Your task to perform on an android device: What's on the menu at Chipotle? Image 0: 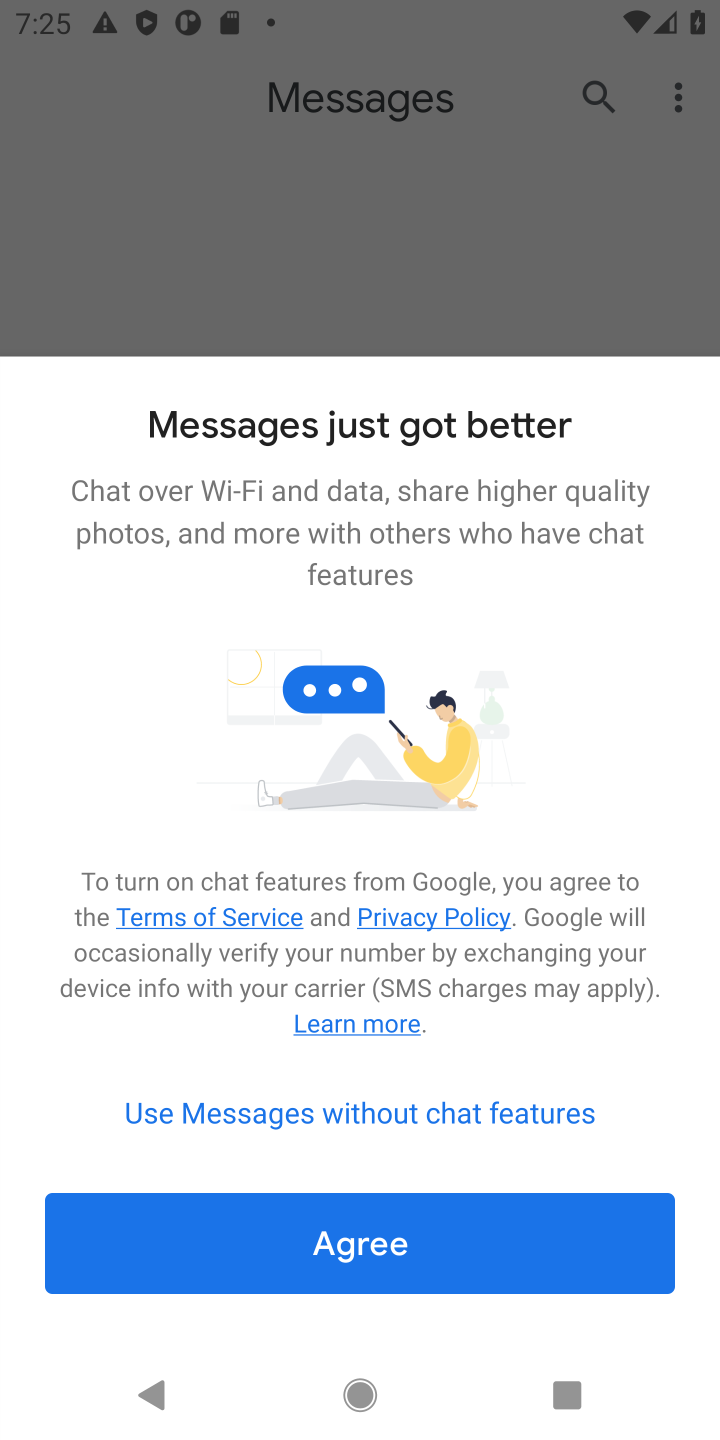
Step 0: press home button
Your task to perform on an android device: What's on the menu at Chipotle? Image 1: 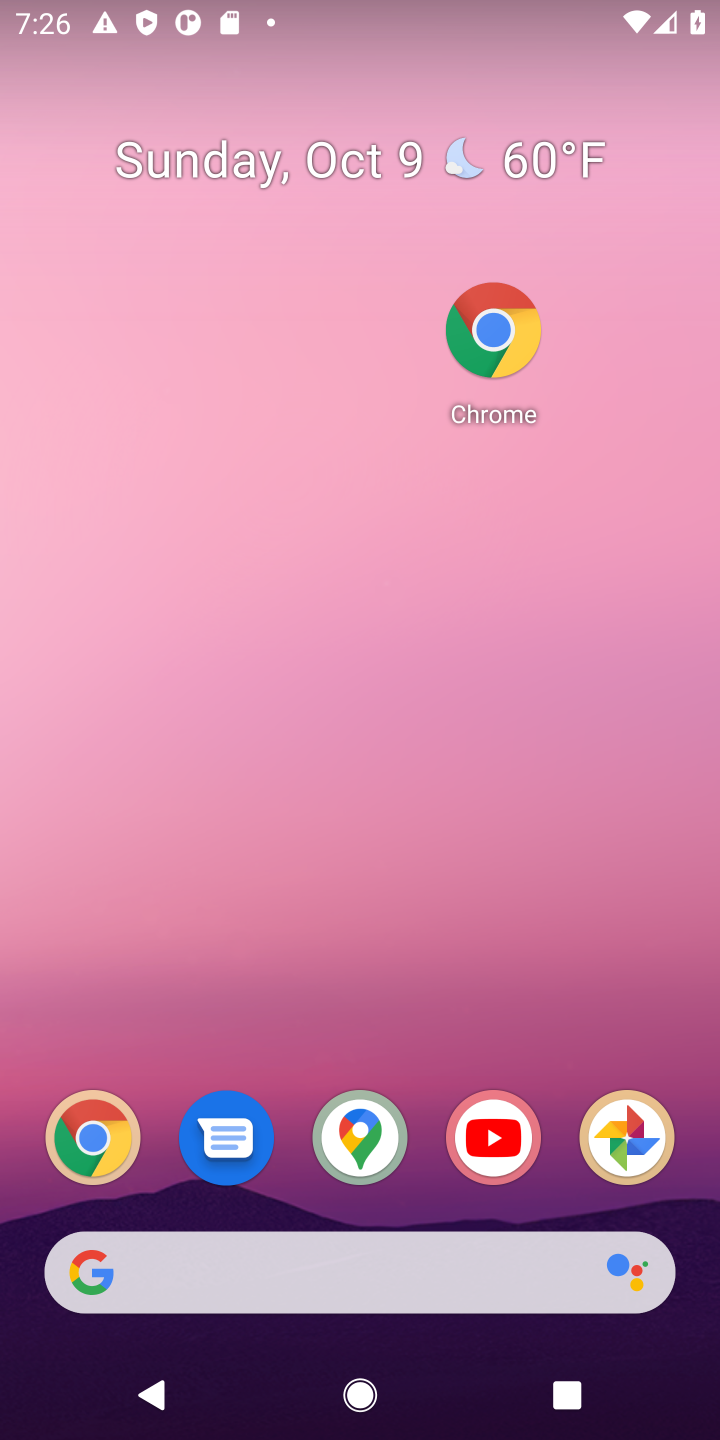
Step 1: click (492, 339)
Your task to perform on an android device: What's on the menu at Chipotle? Image 2: 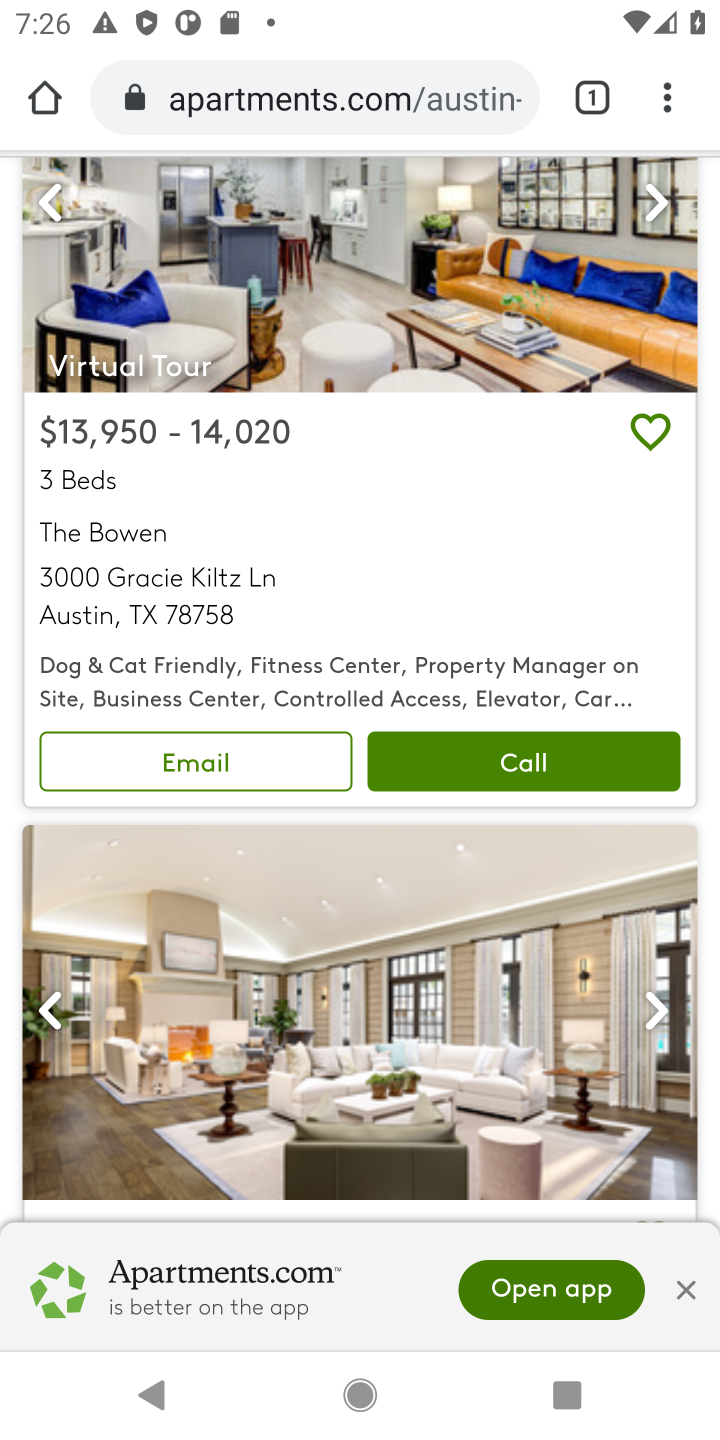
Step 2: click (425, 100)
Your task to perform on an android device: What's on the menu at Chipotle? Image 3: 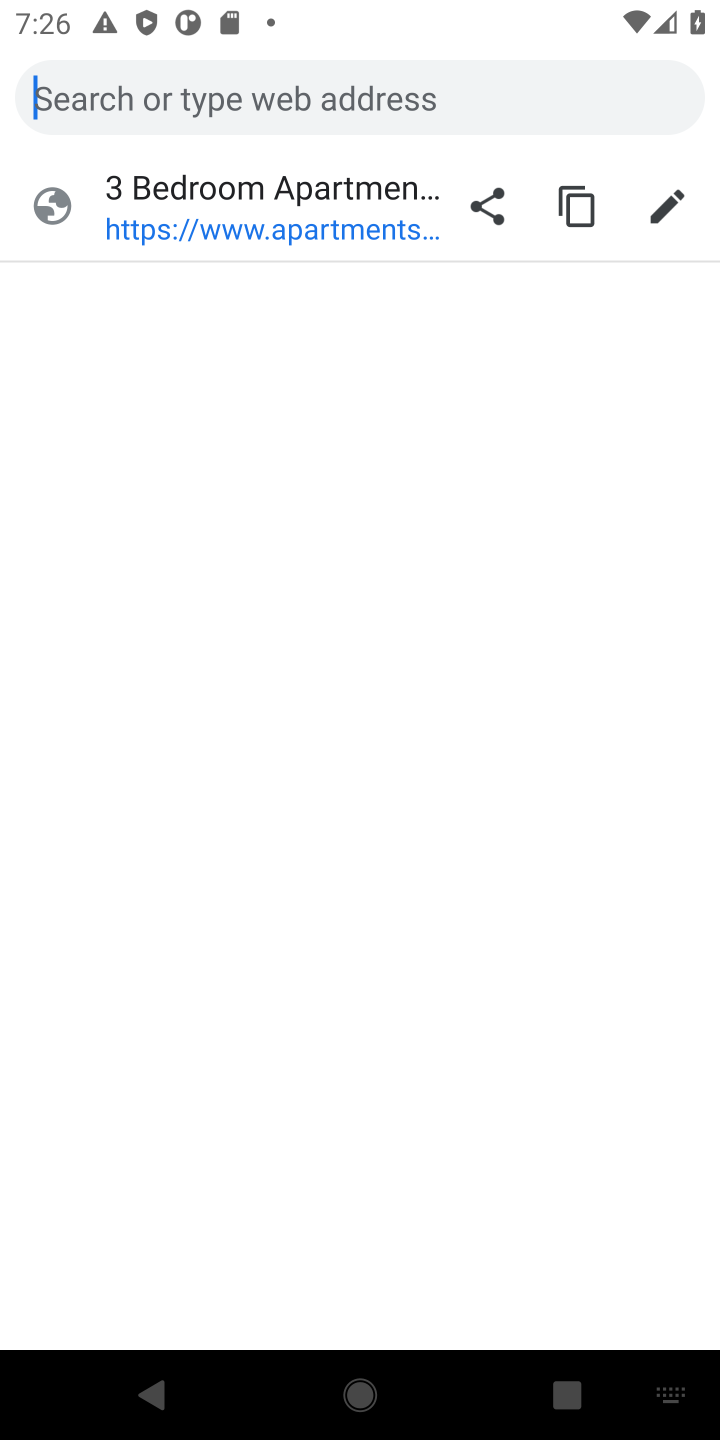
Step 3: type "menu at Chipotle"
Your task to perform on an android device: What's on the menu at Chipotle? Image 4: 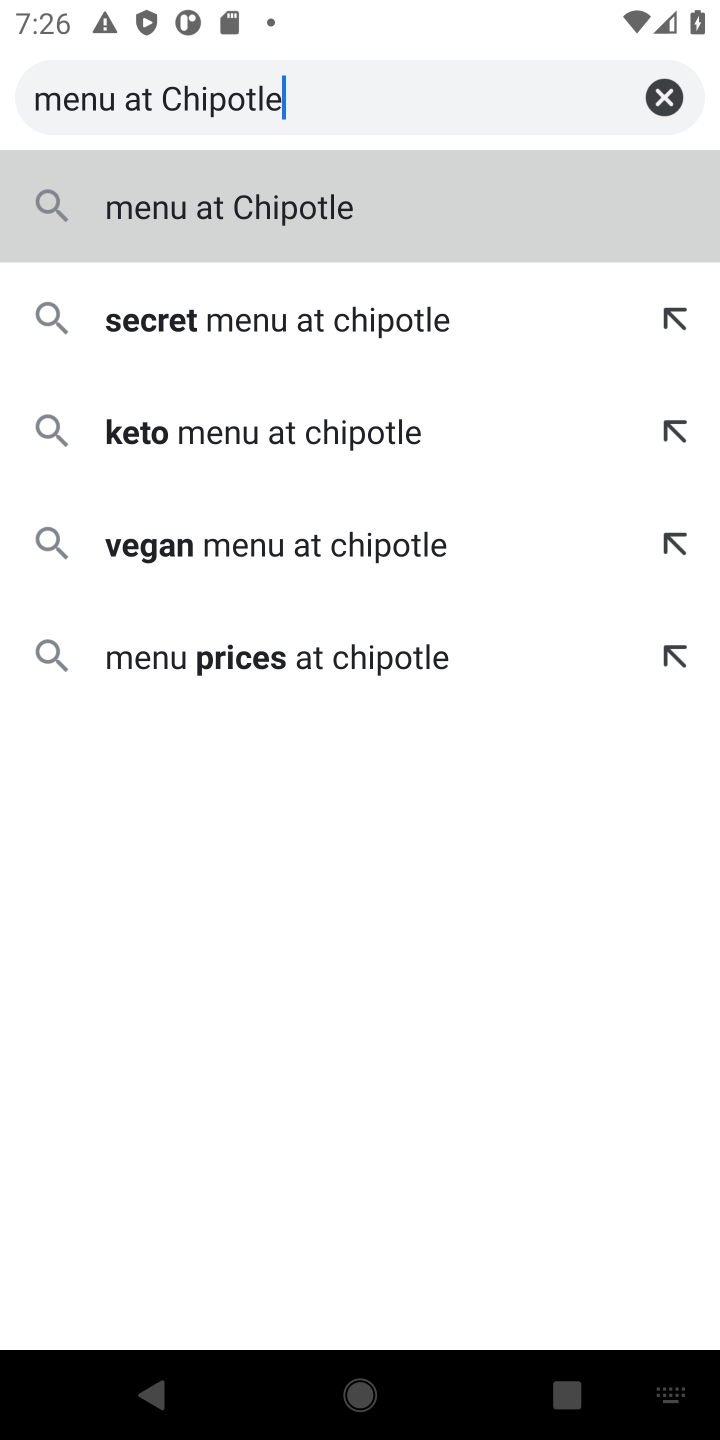
Step 4: click (274, 211)
Your task to perform on an android device: What's on the menu at Chipotle? Image 5: 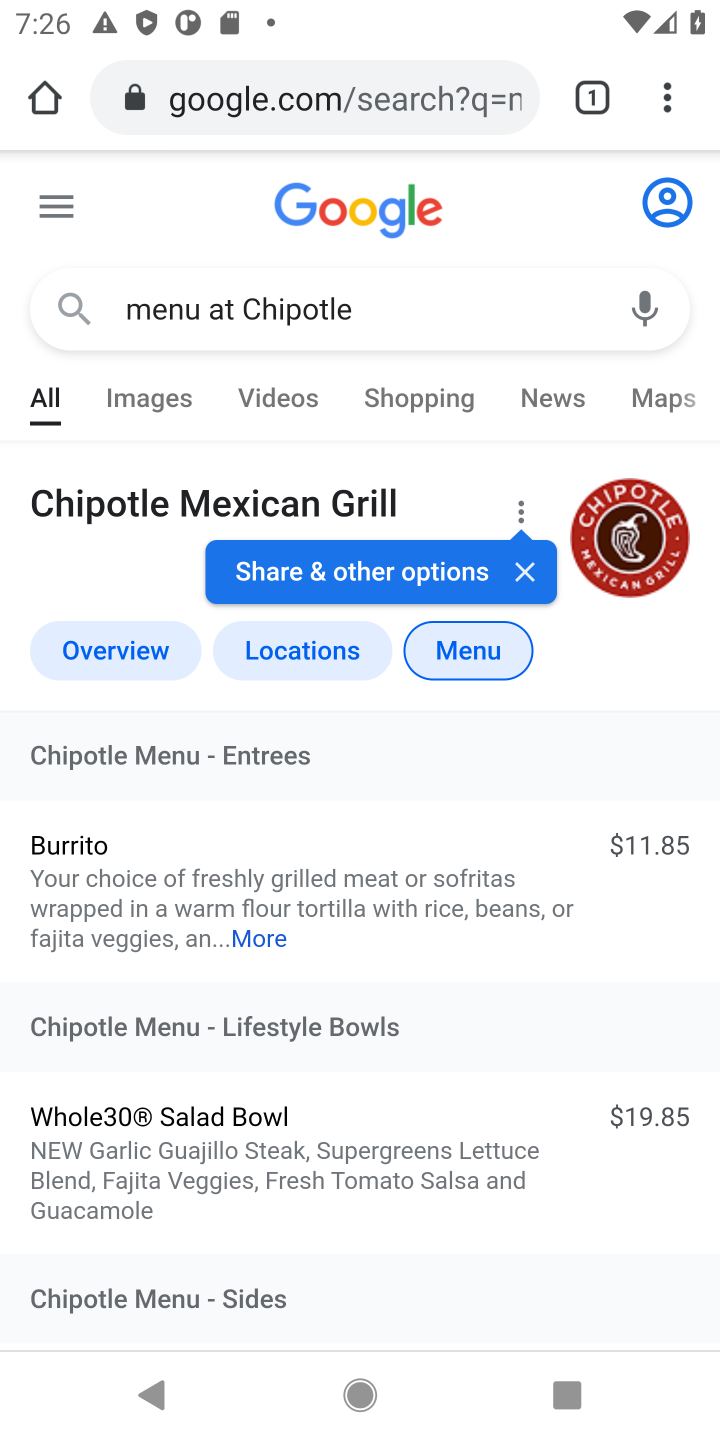
Step 5: drag from (515, 914) to (547, 541)
Your task to perform on an android device: What's on the menu at Chipotle? Image 6: 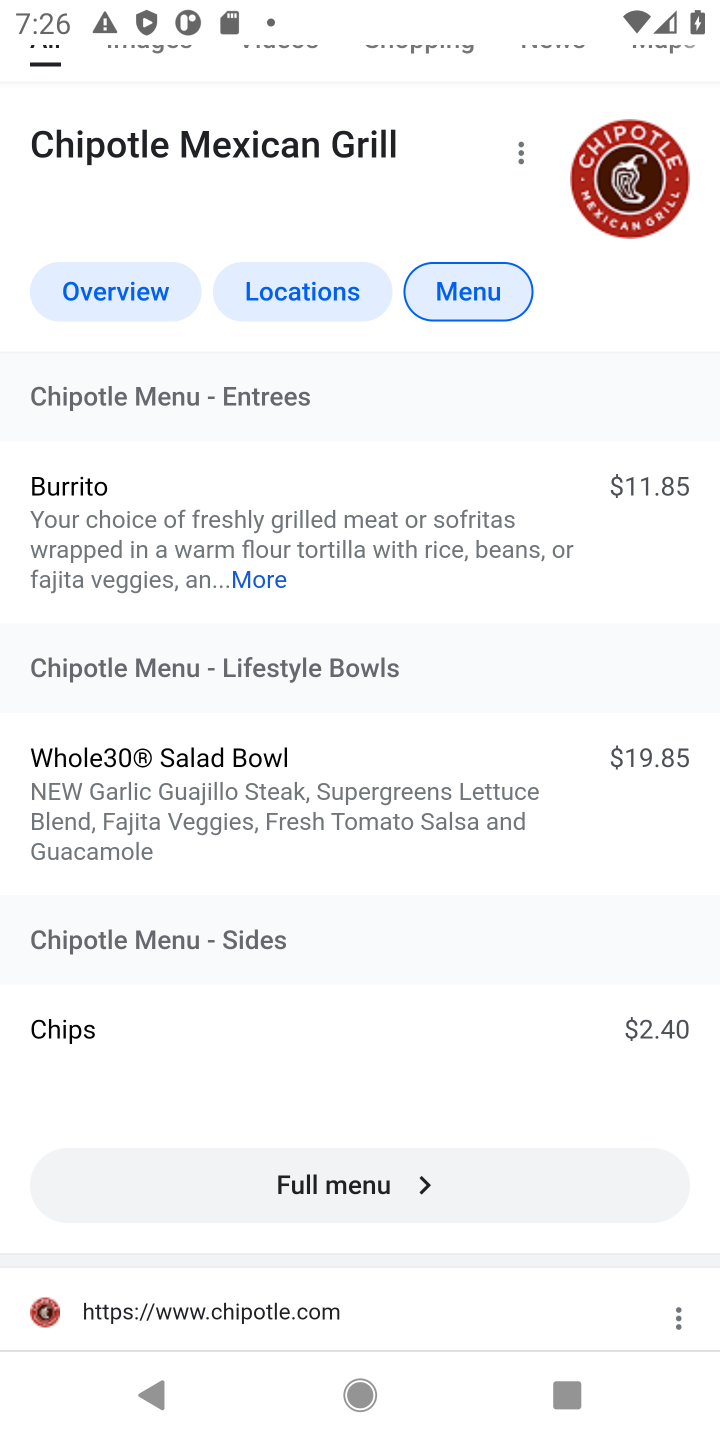
Step 6: click (359, 1168)
Your task to perform on an android device: What's on the menu at Chipotle? Image 7: 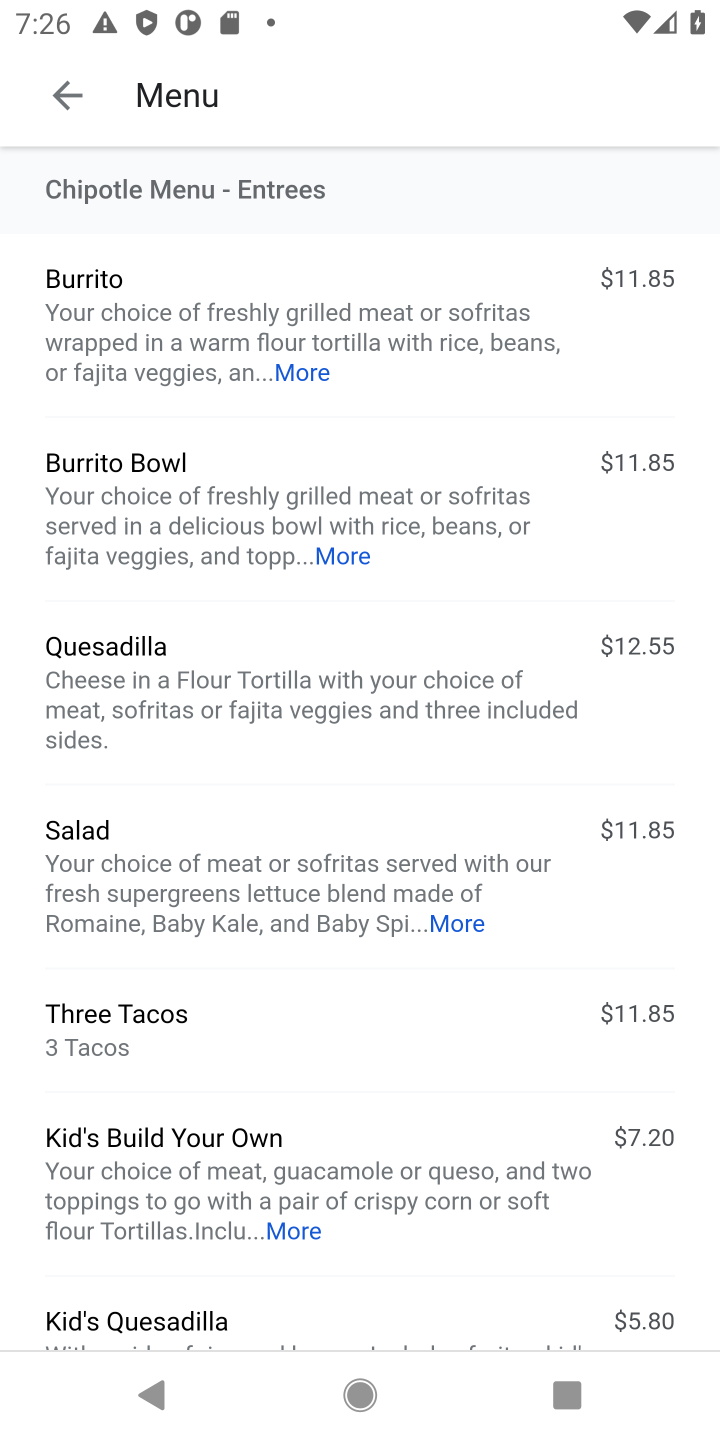
Step 7: task complete